Your task to perform on an android device: Open internet settings Image 0: 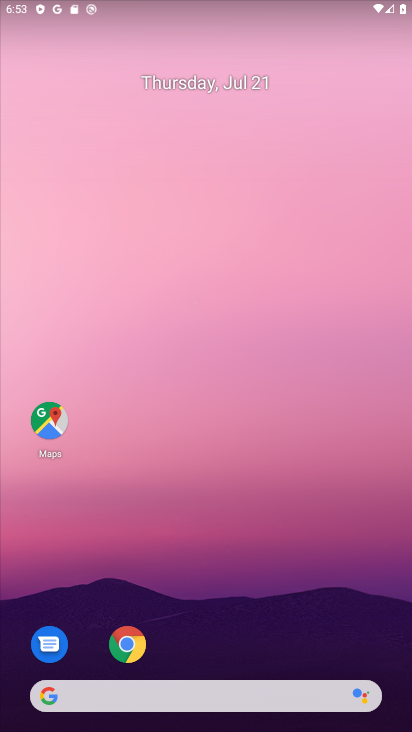
Step 0: drag from (265, 644) to (215, 258)
Your task to perform on an android device: Open internet settings Image 1: 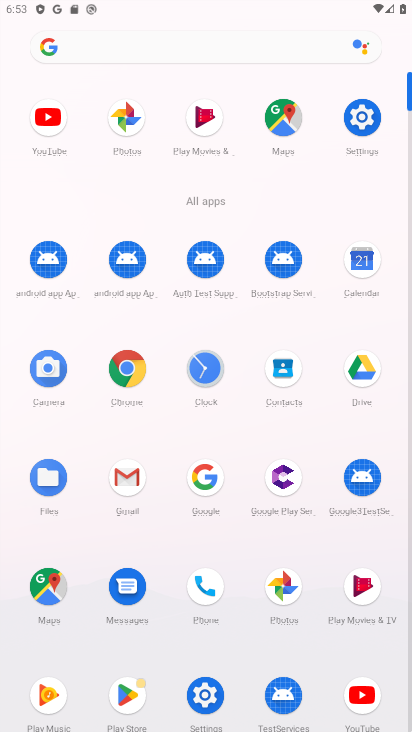
Step 1: click (361, 129)
Your task to perform on an android device: Open internet settings Image 2: 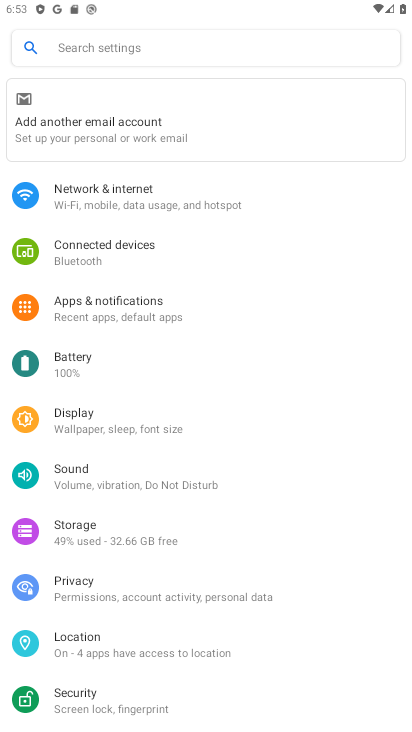
Step 2: click (98, 195)
Your task to perform on an android device: Open internet settings Image 3: 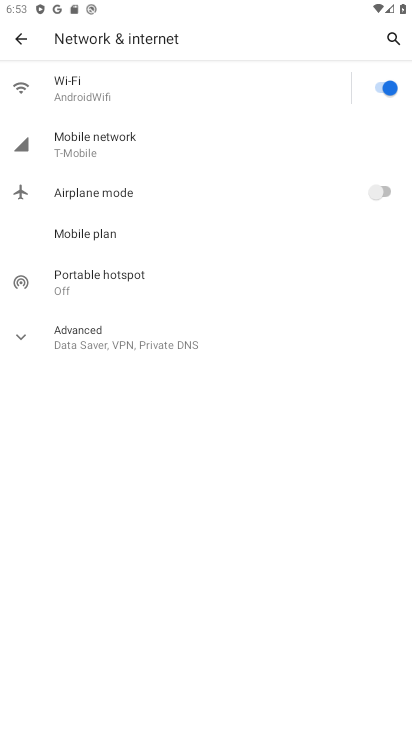
Step 3: task complete